Your task to perform on an android device: turn off notifications settings in the gmail app Image 0: 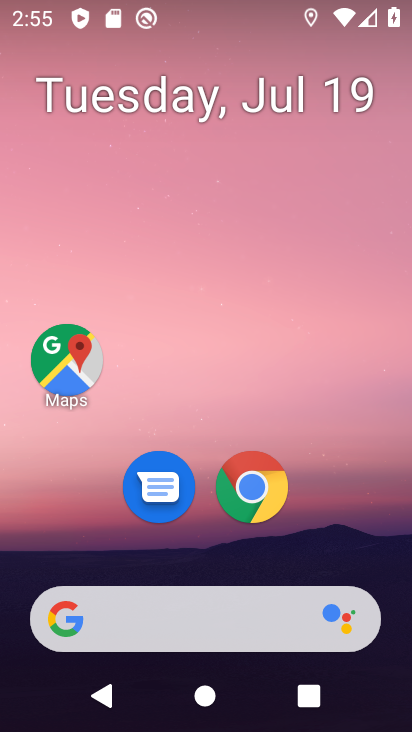
Step 0: drag from (177, 569) to (268, 28)
Your task to perform on an android device: turn off notifications settings in the gmail app Image 1: 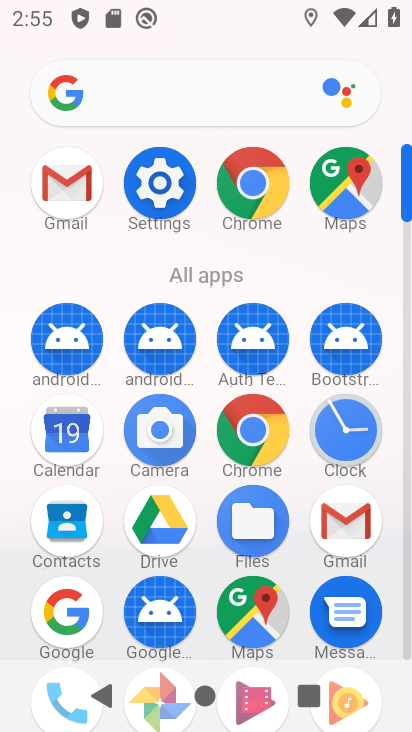
Step 1: click (71, 184)
Your task to perform on an android device: turn off notifications settings in the gmail app Image 2: 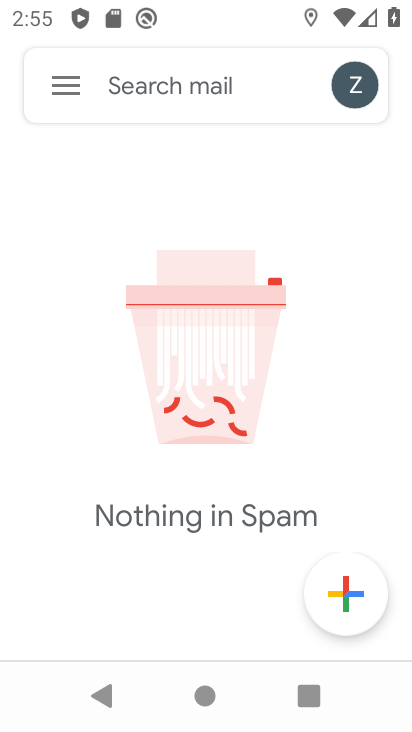
Step 2: click (69, 77)
Your task to perform on an android device: turn off notifications settings in the gmail app Image 3: 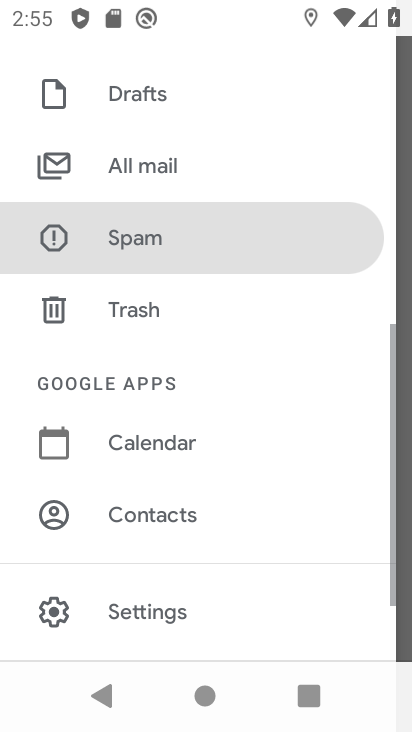
Step 3: drag from (96, 548) to (164, 120)
Your task to perform on an android device: turn off notifications settings in the gmail app Image 4: 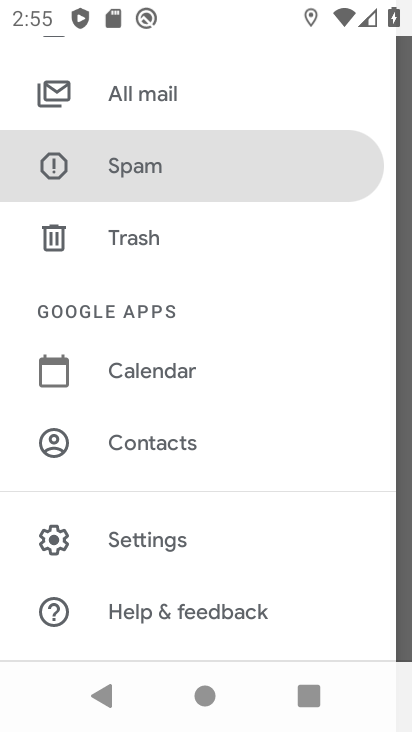
Step 4: click (167, 543)
Your task to perform on an android device: turn off notifications settings in the gmail app Image 5: 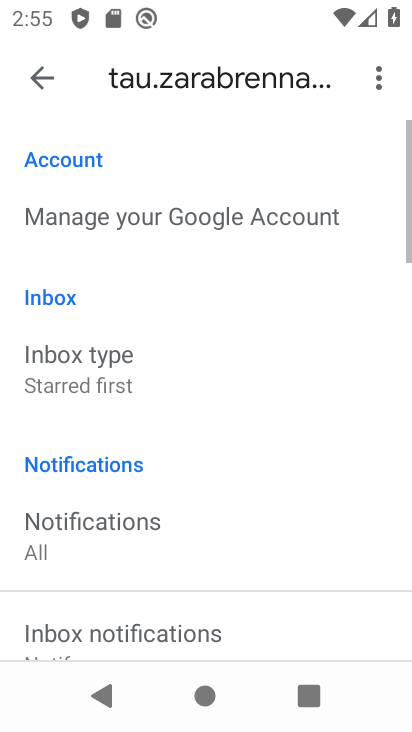
Step 5: drag from (137, 609) to (214, 149)
Your task to perform on an android device: turn off notifications settings in the gmail app Image 6: 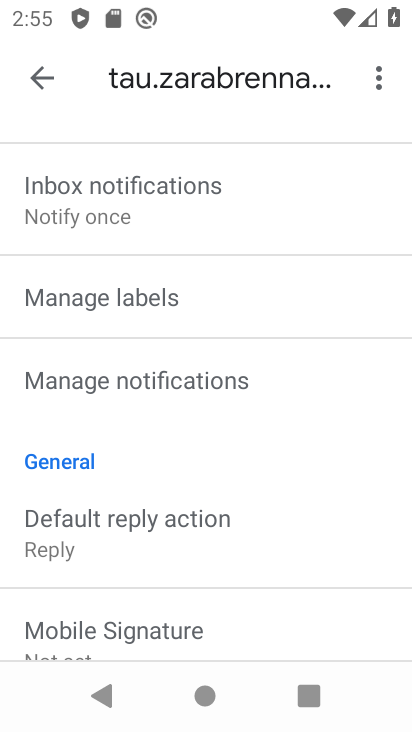
Step 6: click (103, 377)
Your task to perform on an android device: turn off notifications settings in the gmail app Image 7: 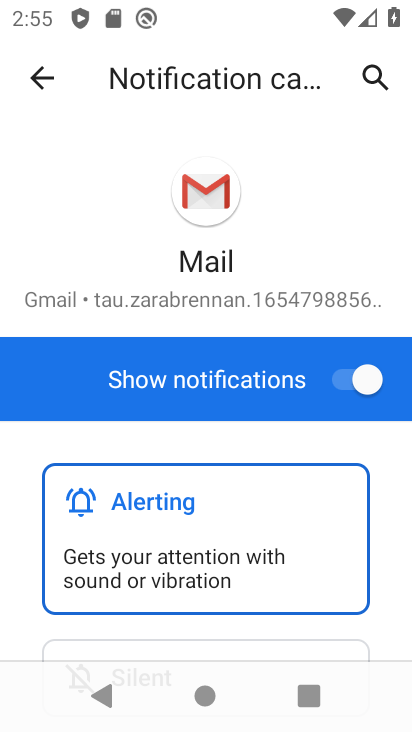
Step 7: click (372, 375)
Your task to perform on an android device: turn off notifications settings in the gmail app Image 8: 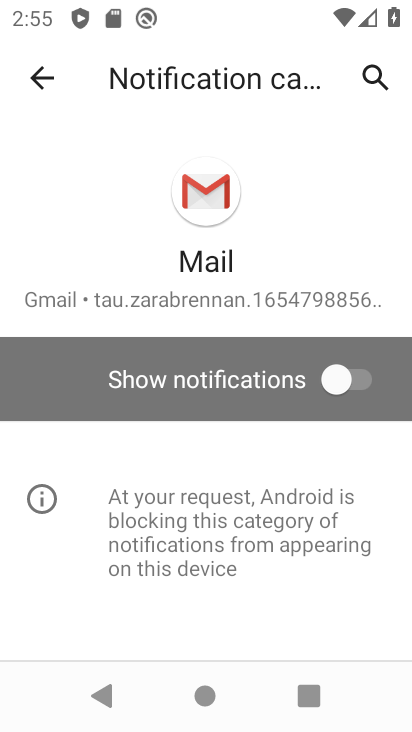
Step 8: task complete